Your task to perform on an android device: turn off location Image 0: 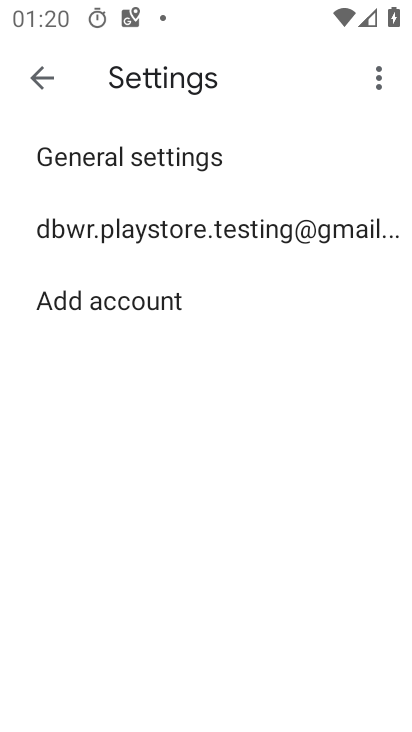
Step 0: press home button
Your task to perform on an android device: turn off location Image 1: 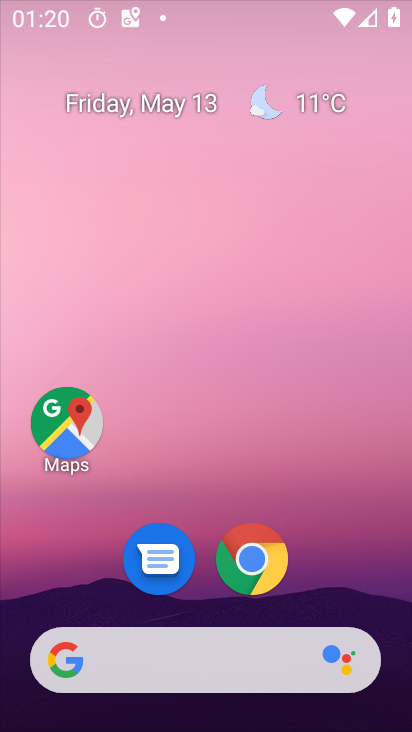
Step 1: drag from (364, 553) to (364, 75)
Your task to perform on an android device: turn off location Image 2: 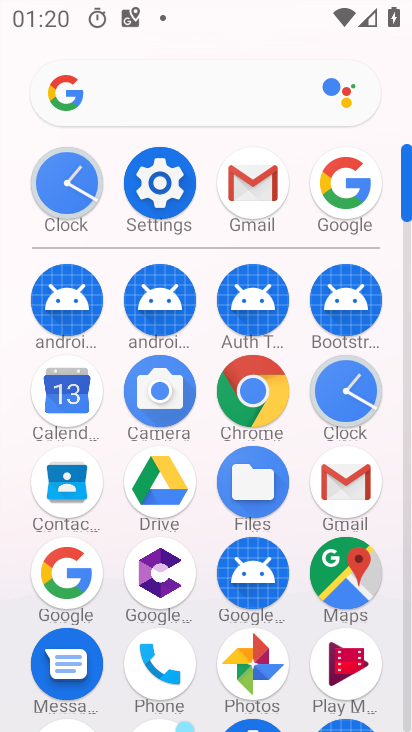
Step 2: click (151, 171)
Your task to perform on an android device: turn off location Image 3: 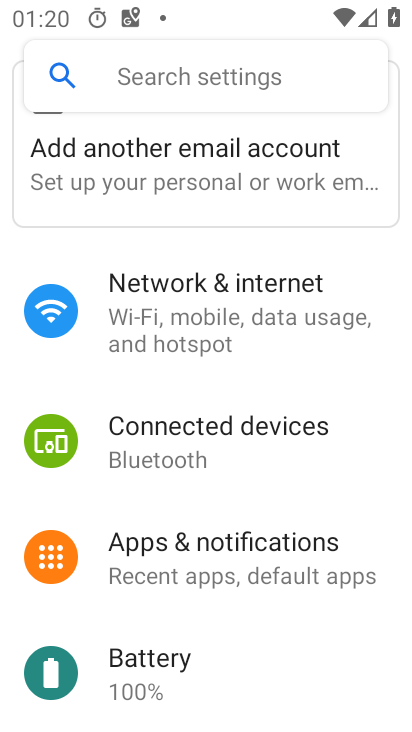
Step 3: drag from (275, 591) to (300, 57)
Your task to perform on an android device: turn off location Image 4: 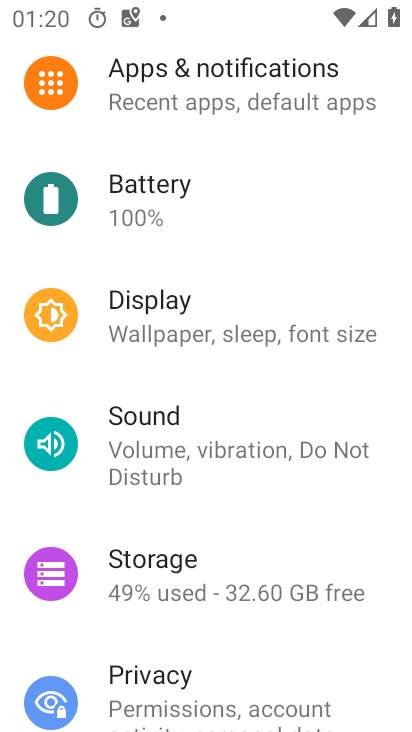
Step 4: drag from (218, 676) to (242, 186)
Your task to perform on an android device: turn off location Image 5: 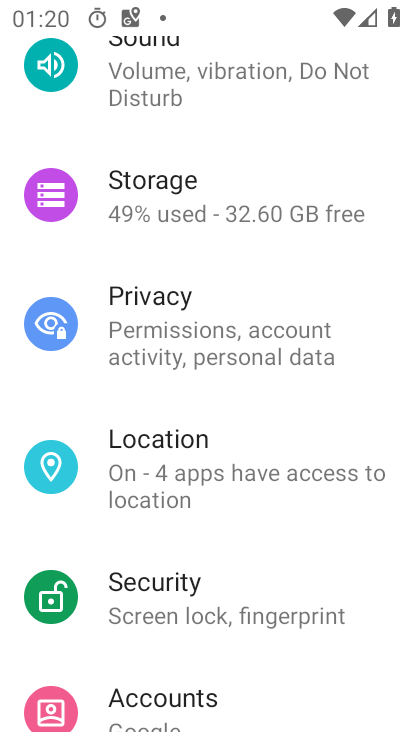
Step 5: click (217, 450)
Your task to perform on an android device: turn off location Image 6: 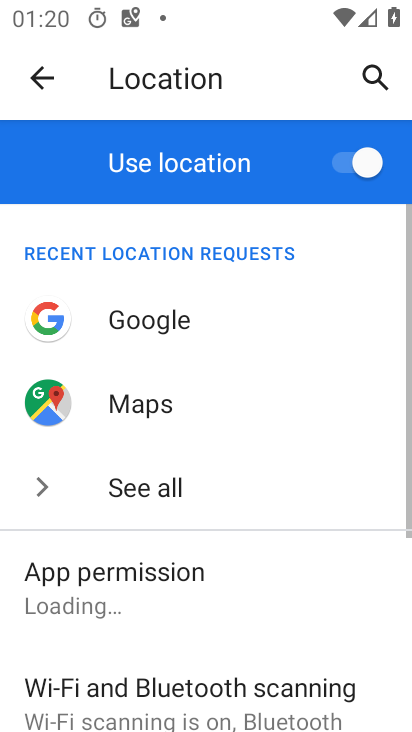
Step 6: click (349, 161)
Your task to perform on an android device: turn off location Image 7: 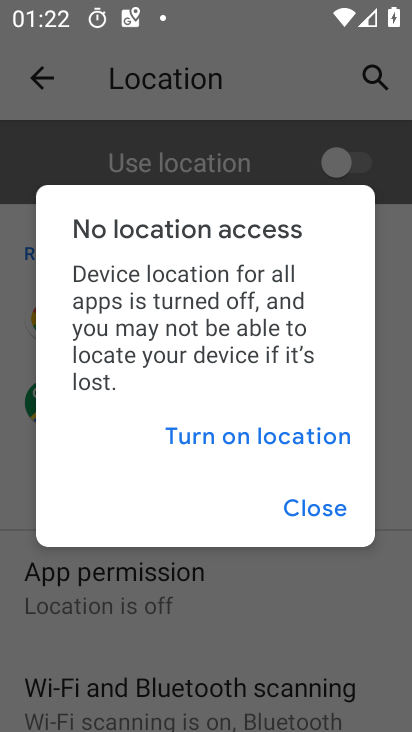
Step 7: click (333, 502)
Your task to perform on an android device: turn off location Image 8: 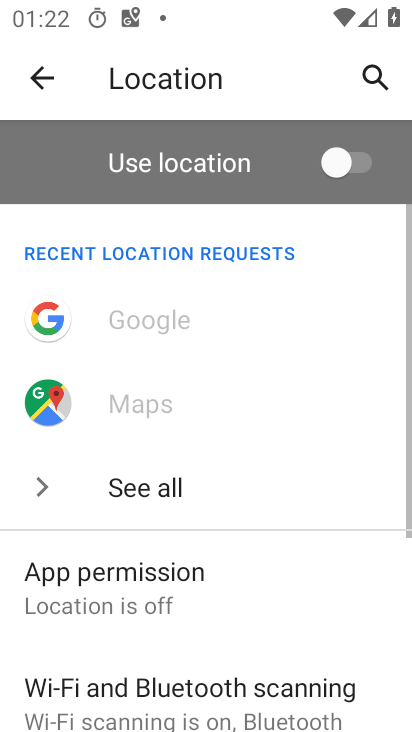
Step 8: task complete